Your task to perform on an android device: View the shopping cart on costco.com. Image 0: 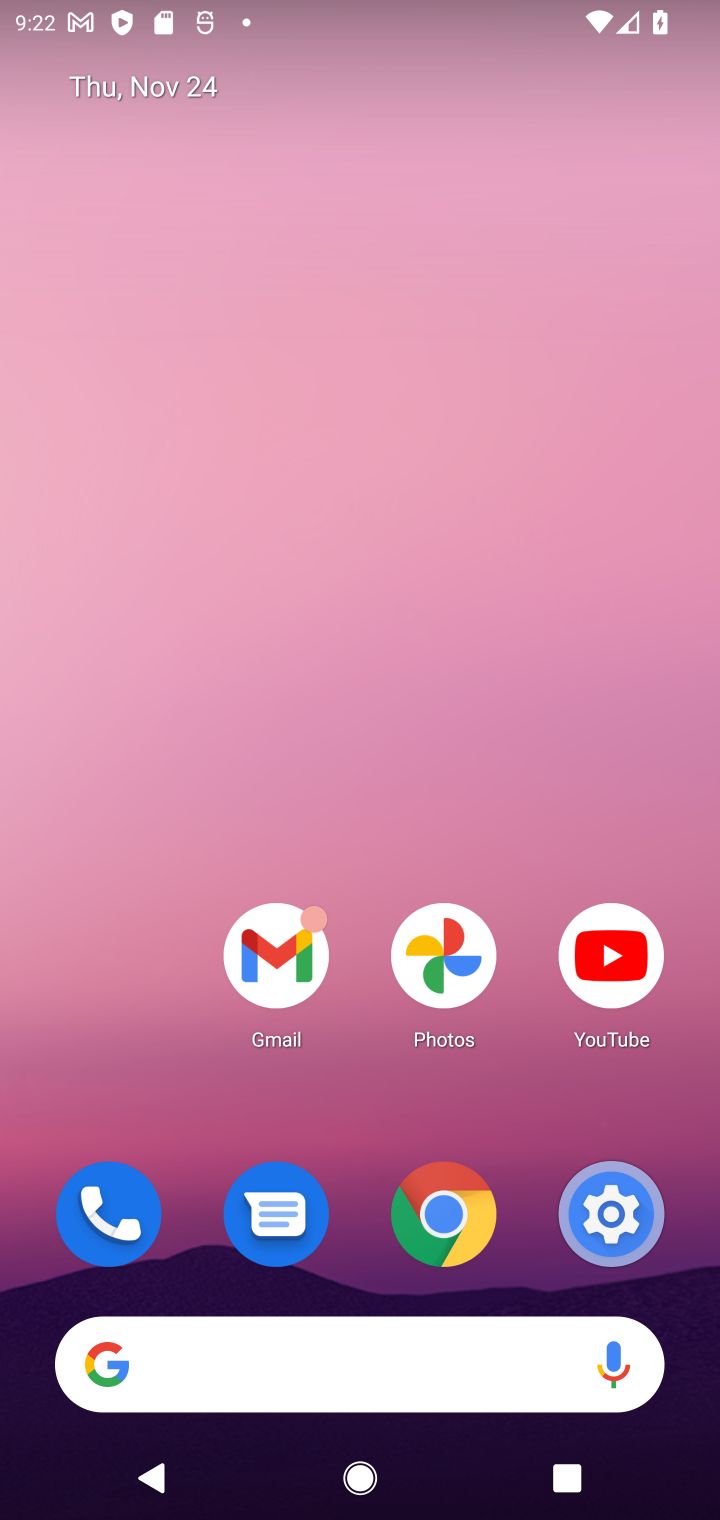
Step 0: click (262, 1358)
Your task to perform on an android device: View the shopping cart on costco.com. Image 1: 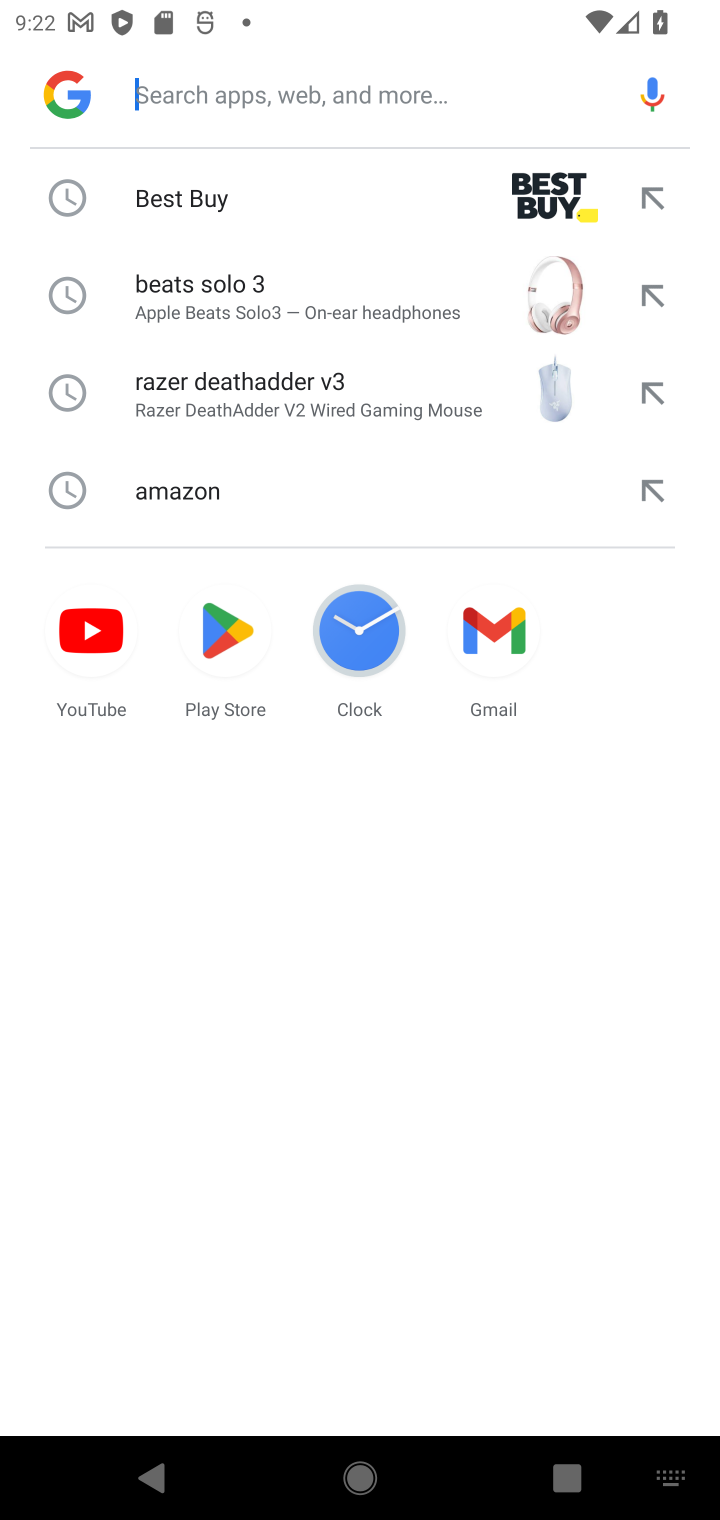
Step 1: type "costco.com"
Your task to perform on an android device: View the shopping cart on costco.com. Image 2: 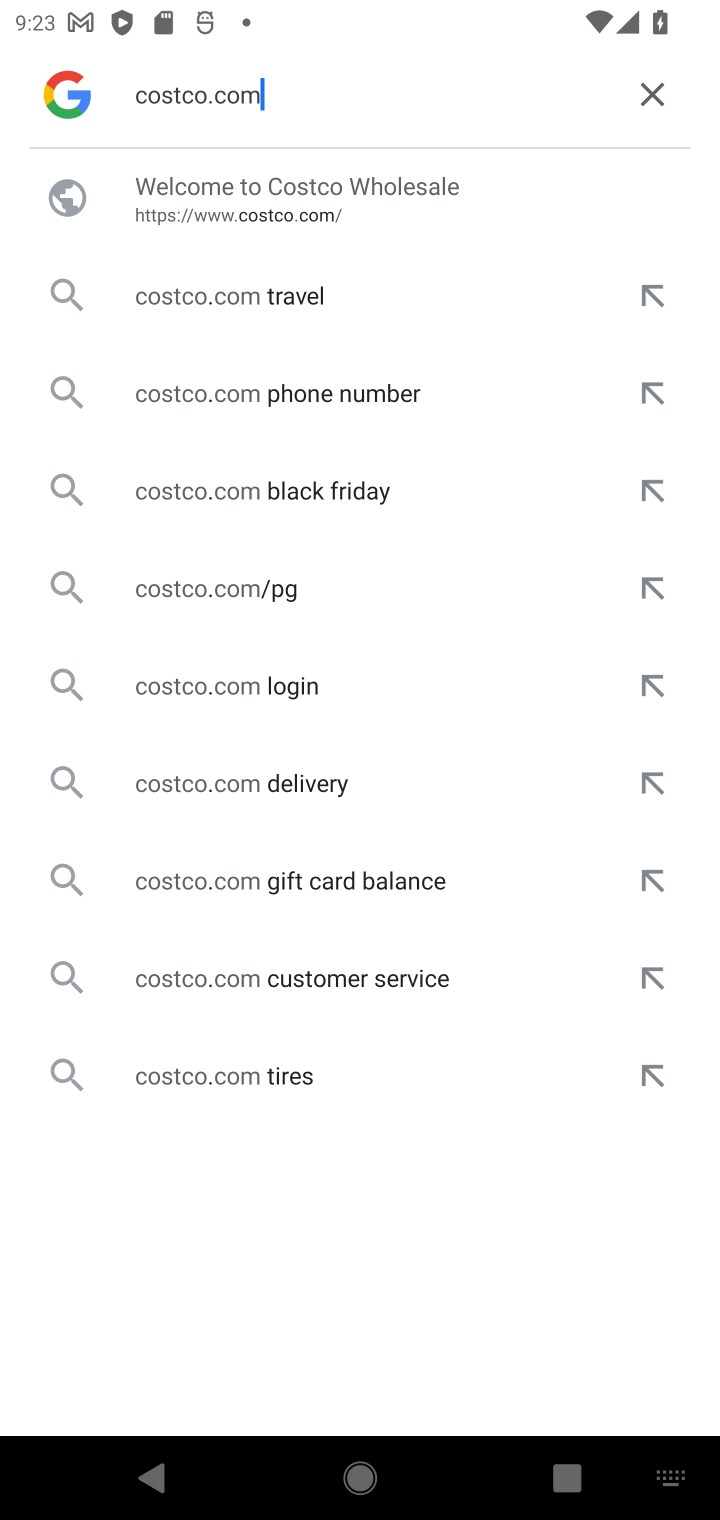
Step 2: click (316, 153)
Your task to perform on an android device: View the shopping cart on costco.com. Image 3: 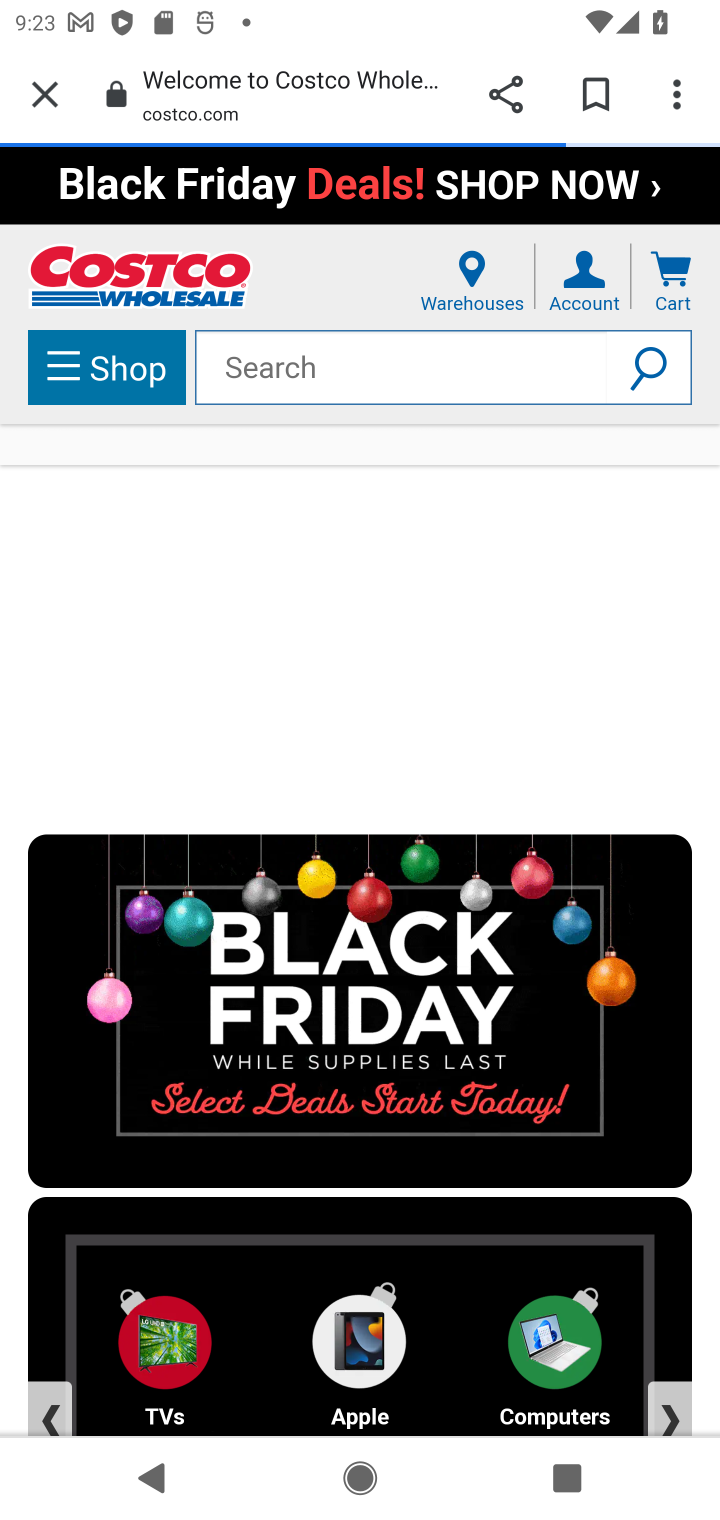
Step 3: click (375, 369)
Your task to perform on an android device: View the shopping cart on costco.com. Image 4: 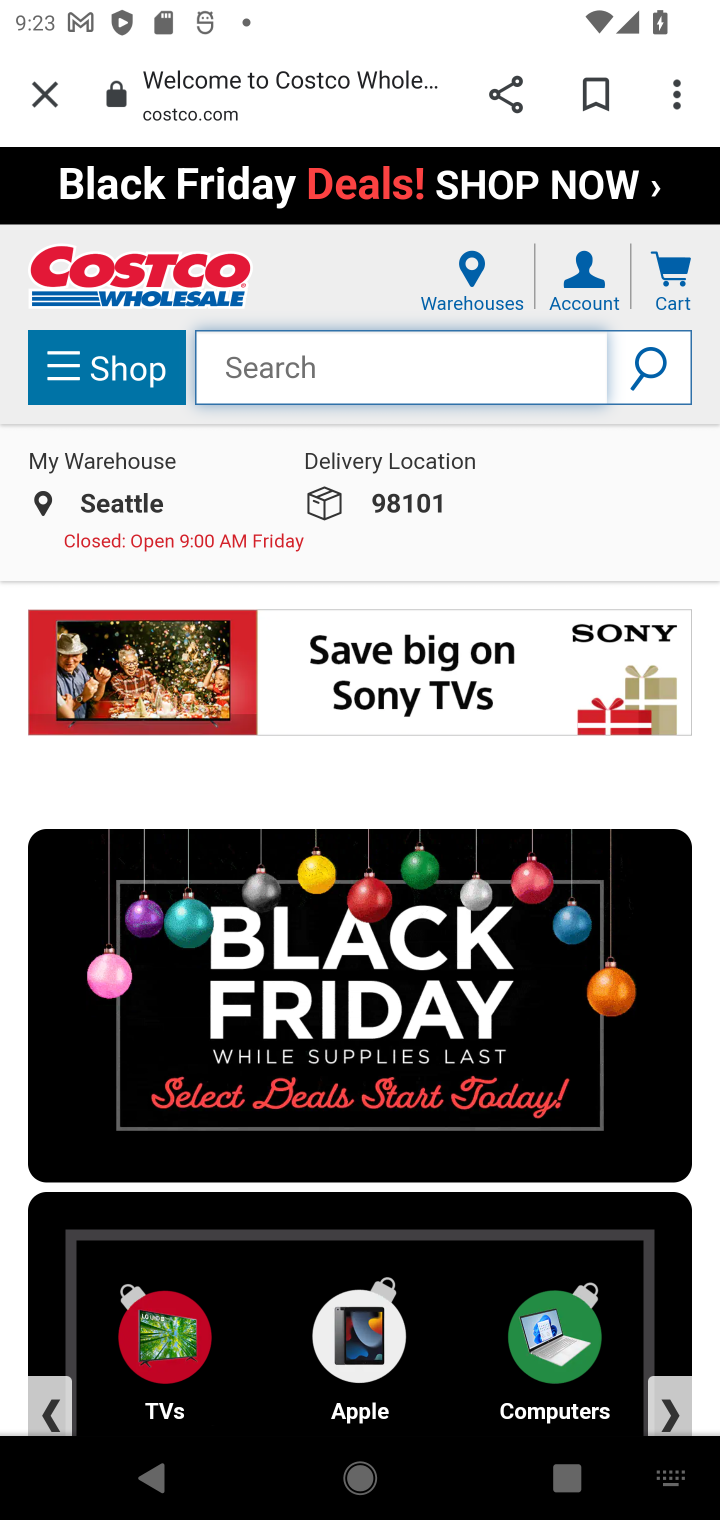
Step 4: click (580, 269)
Your task to perform on an android device: View the shopping cart on costco.com. Image 5: 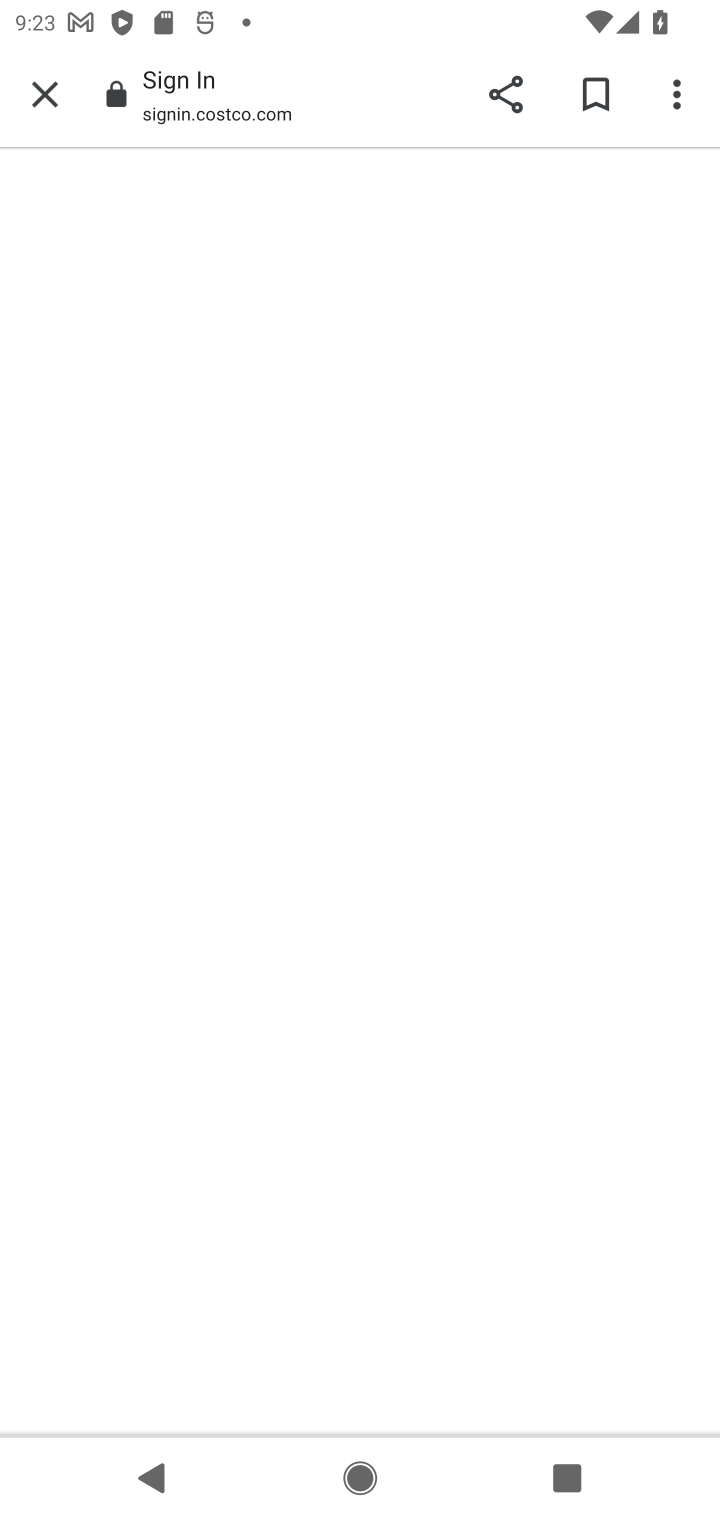
Step 5: click (664, 292)
Your task to perform on an android device: View the shopping cart on costco.com. Image 6: 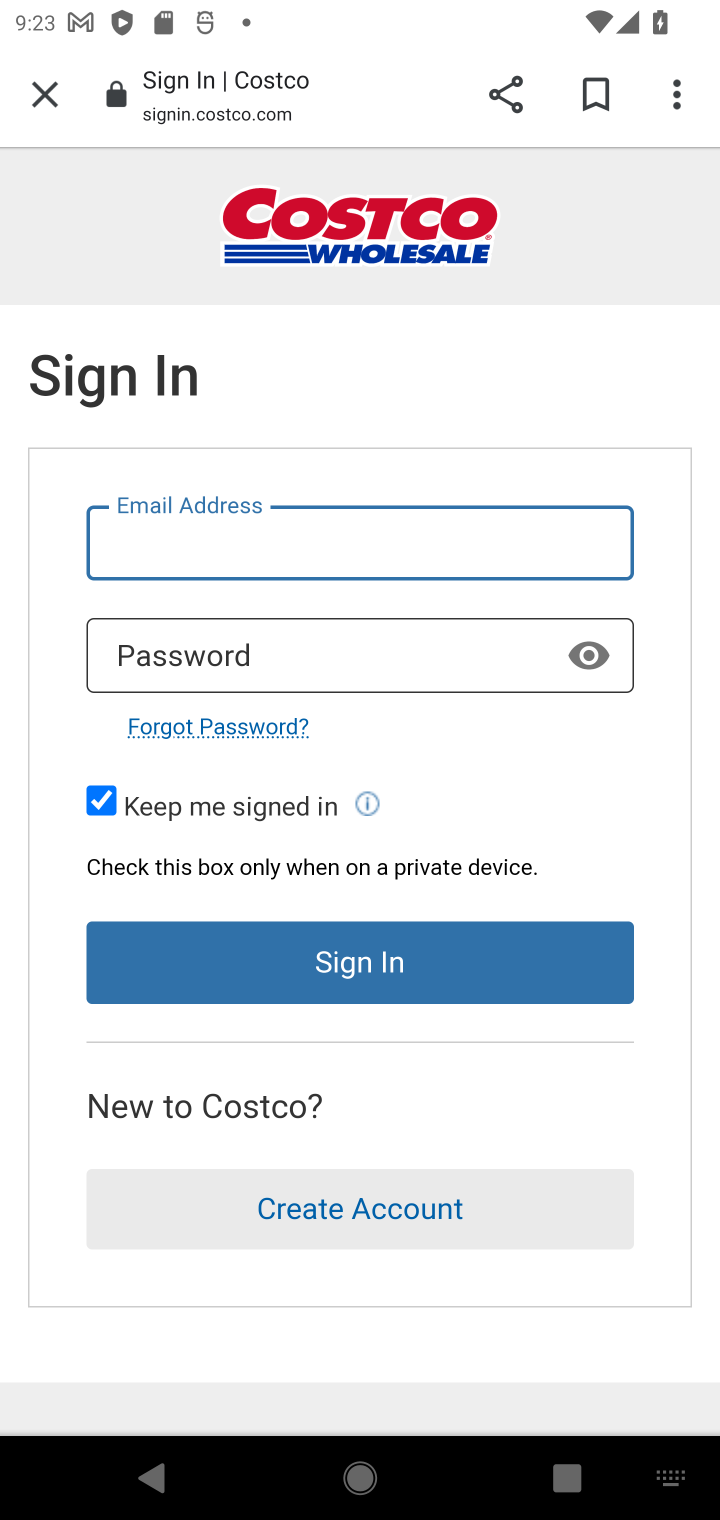
Step 6: press back button
Your task to perform on an android device: View the shopping cart on costco.com. Image 7: 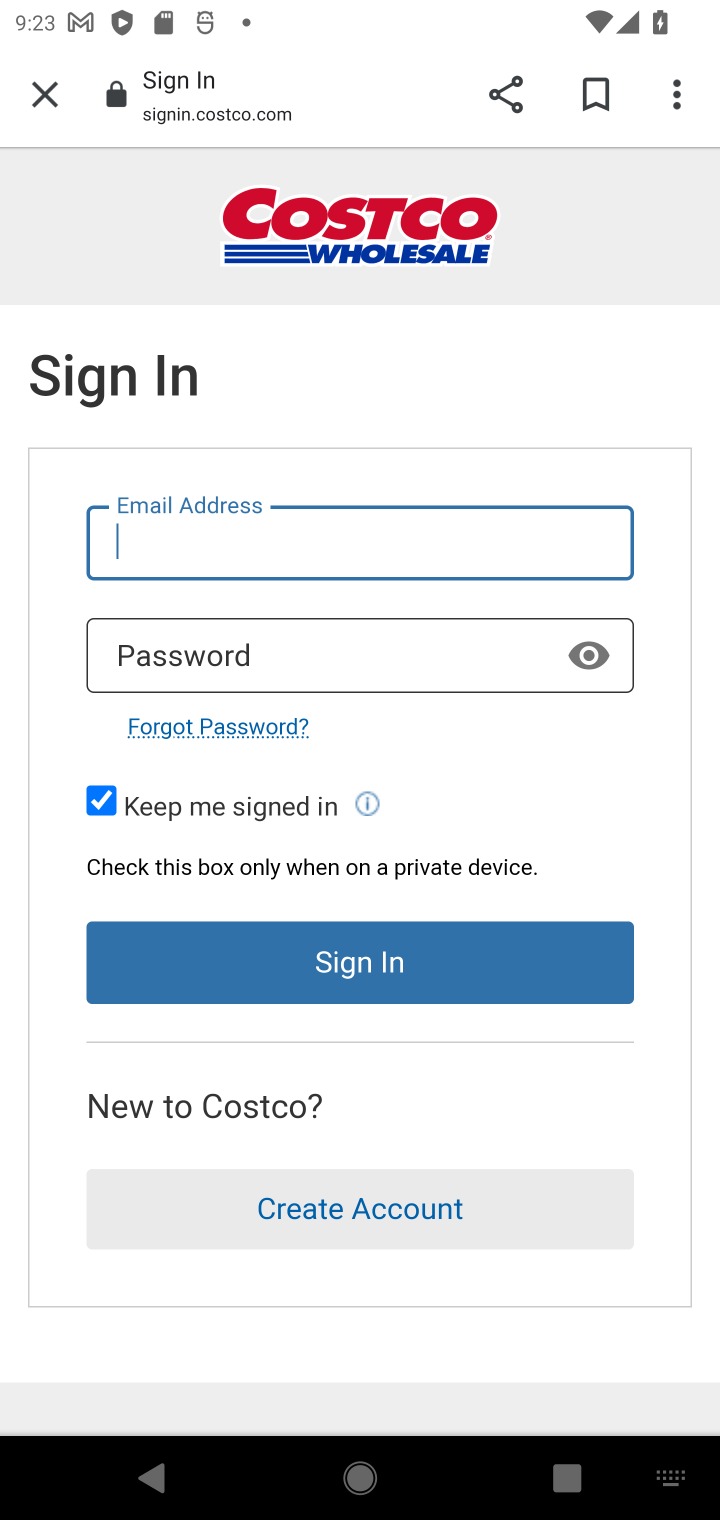
Step 7: press back button
Your task to perform on an android device: View the shopping cart on costco.com. Image 8: 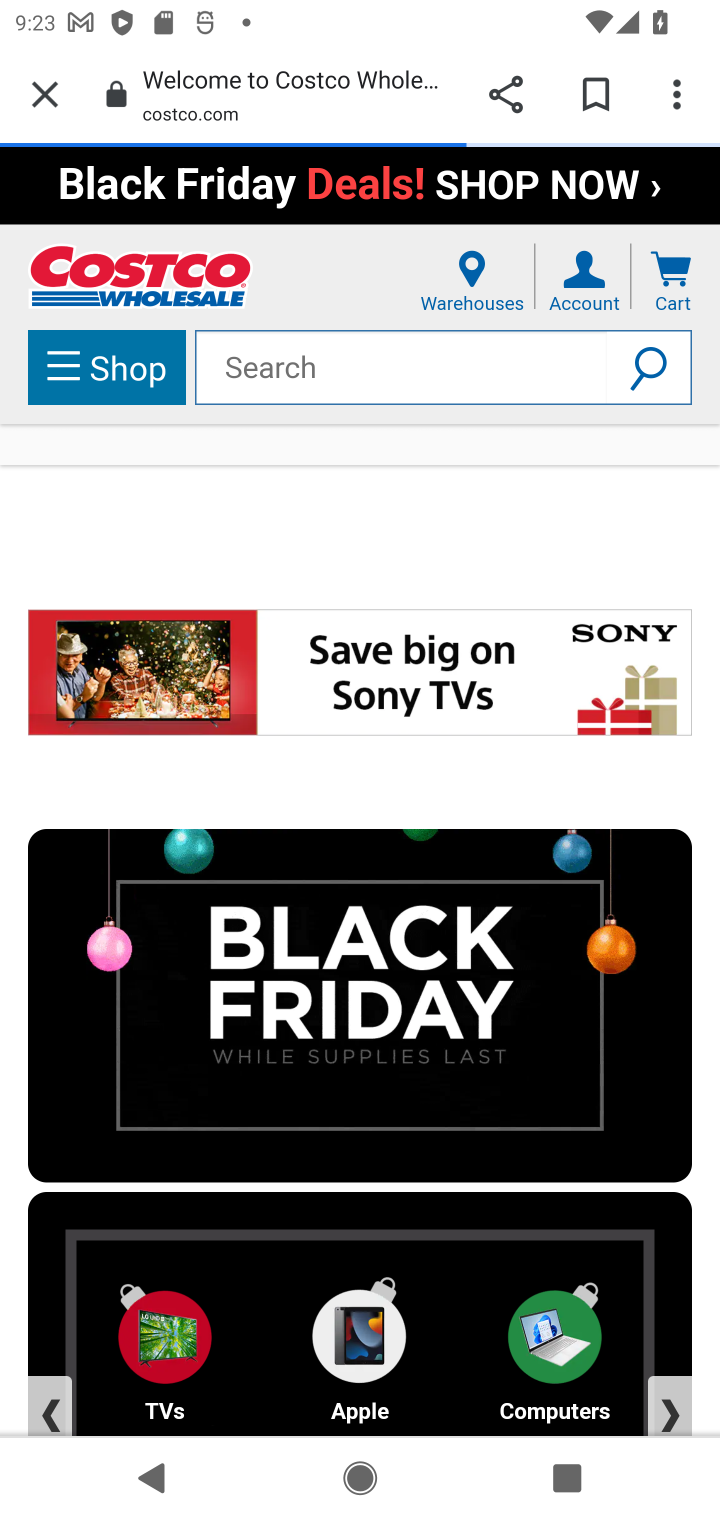
Step 8: click (663, 265)
Your task to perform on an android device: View the shopping cart on costco.com. Image 9: 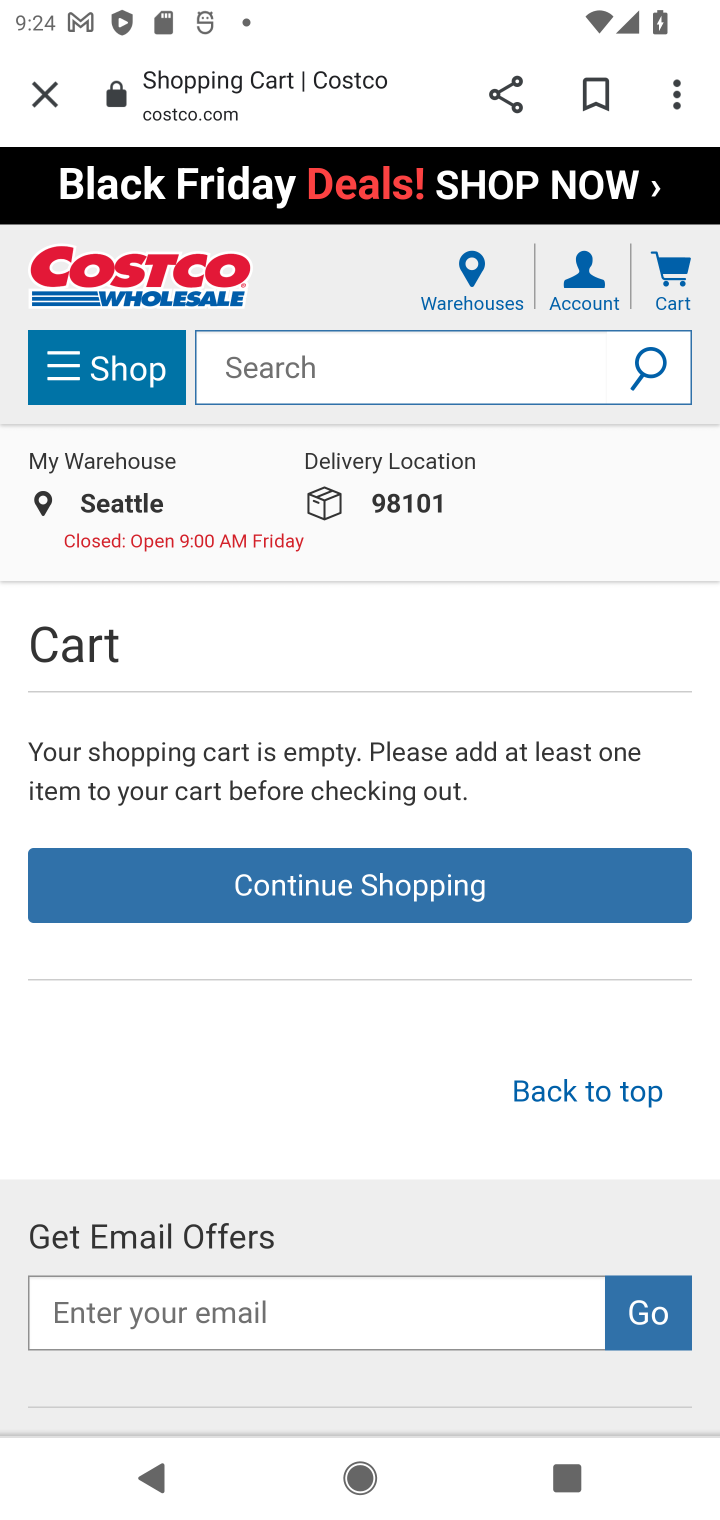
Step 9: task complete